Your task to perform on an android device: Set the phone to "Do not disturb". Image 0: 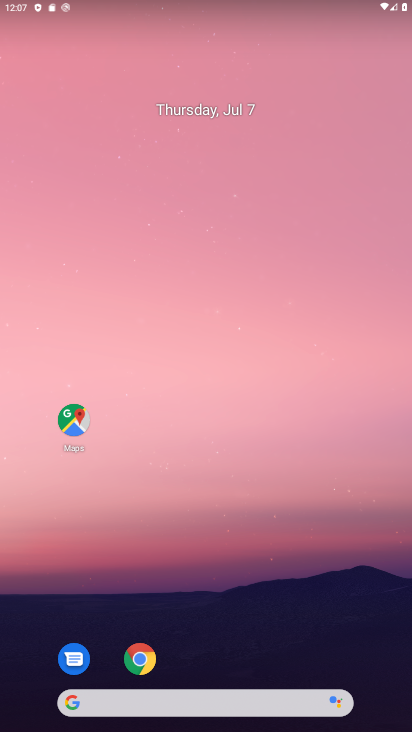
Step 0: drag from (188, 661) to (150, 96)
Your task to perform on an android device: Set the phone to "Do not disturb". Image 1: 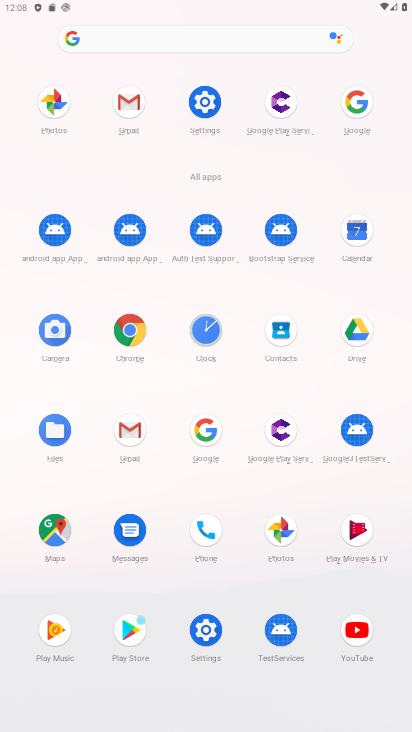
Step 1: click (202, 631)
Your task to perform on an android device: Set the phone to "Do not disturb". Image 2: 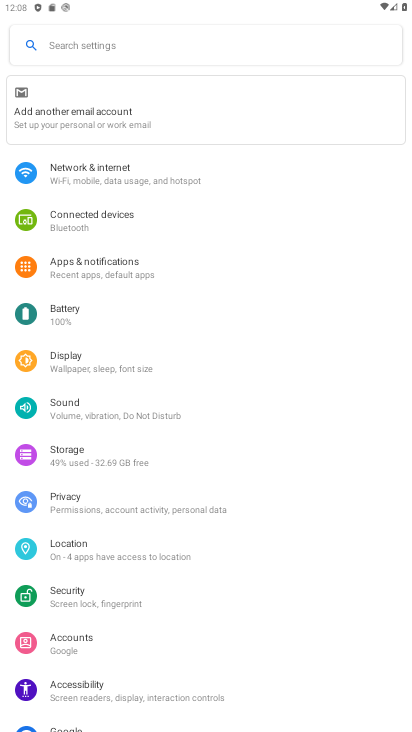
Step 2: click (64, 397)
Your task to perform on an android device: Set the phone to "Do not disturb". Image 3: 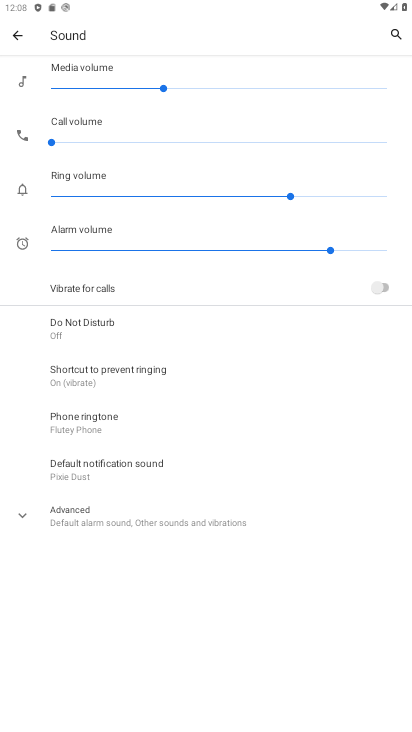
Step 3: click (104, 330)
Your task to perform on an android device: Set the phone to "Do not disturb". Image 4: 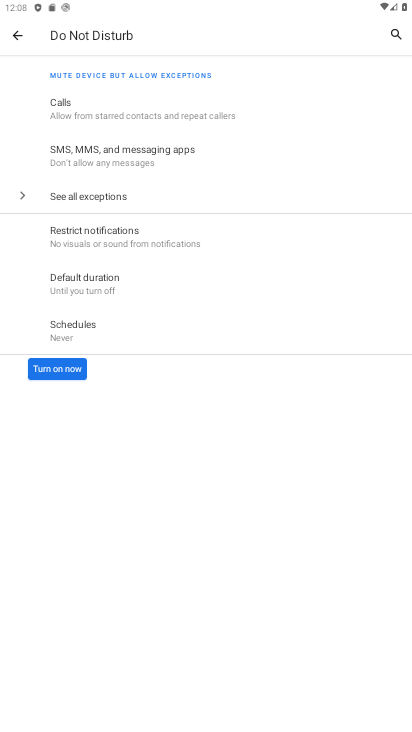
Step 4: click (67, 365)
Your task to perform on an android device: Set the phone to "Do not disturb". Image 5: 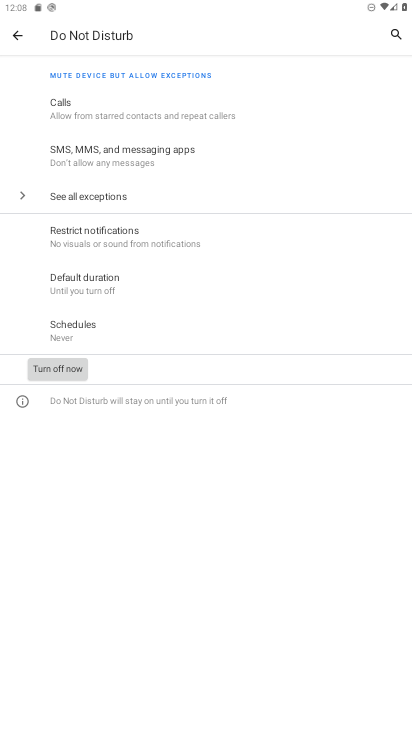
Step 5: task complete